Your task to perform on an android device: Find coffee shops on Maps Image 0: 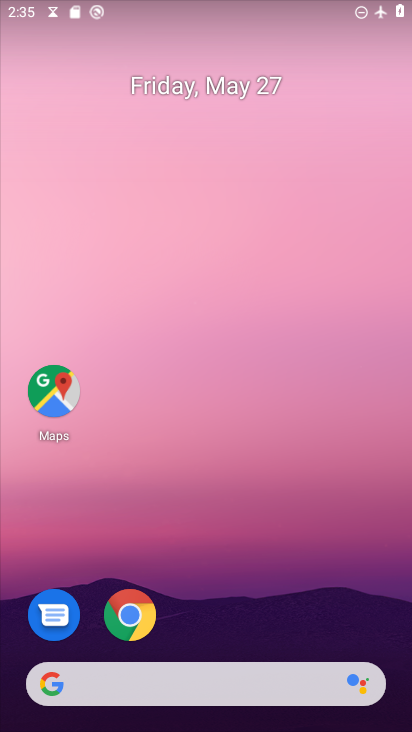
Step 0: drag from (259, 597) to (288, 160)
Your task to perform on an android device: Find coffee shops on Maps Image 1: 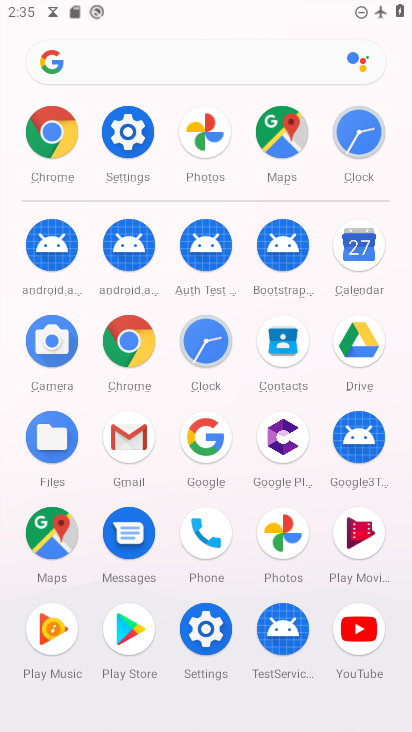
Step 1: click (62, 546)
Your task to perform on an android device: Find coffee shops on Maps Image 2: 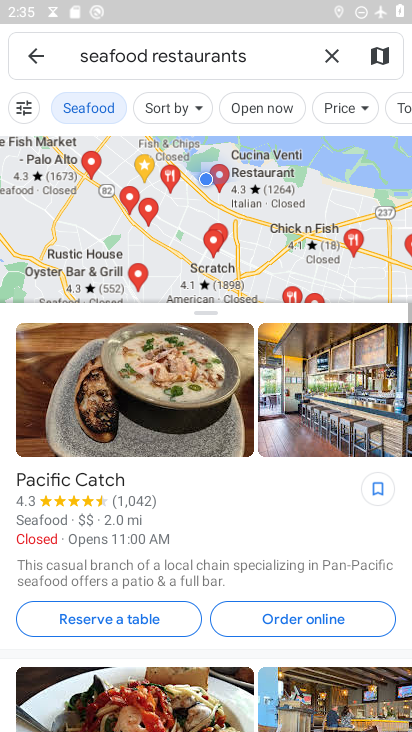
Step 2: click (326, 61)
Your task to perform on an android device: Find coffee shops on Maps Image 3: 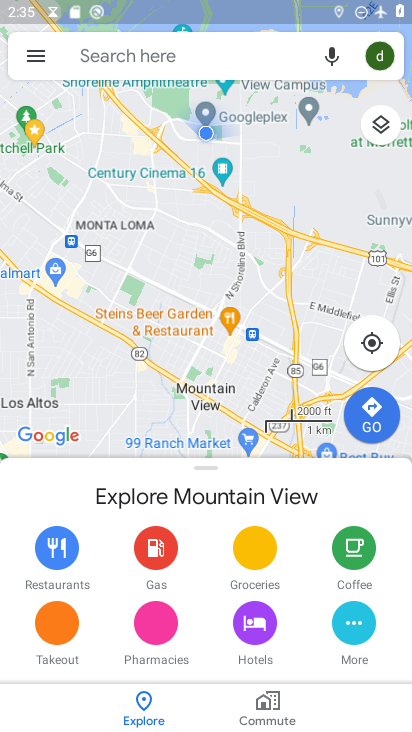
Step 3: click (172, 62)
Your task to perform on an android device: Find coffee shops on Maps Image 4: 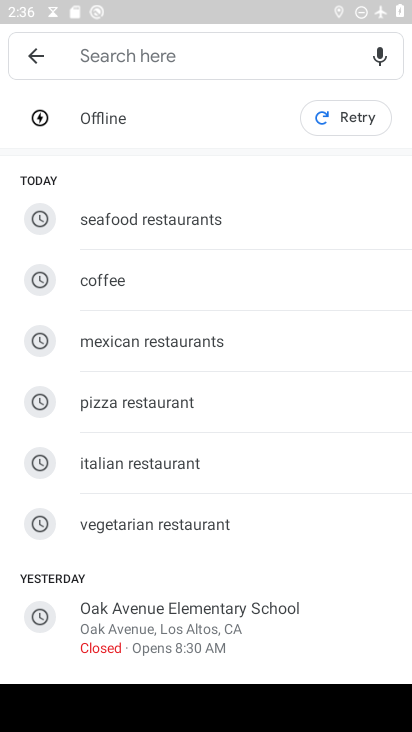
Step 4: type "coffee shops"
Your task to perform on an android device: Find coffee shops on Maps Image 5: 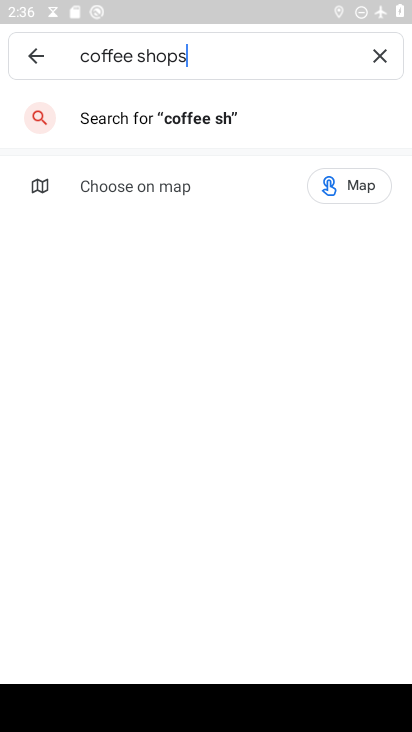
Step 5: type ""
Your task to perform on an android device: Find coffee shops on Maps Image 6: 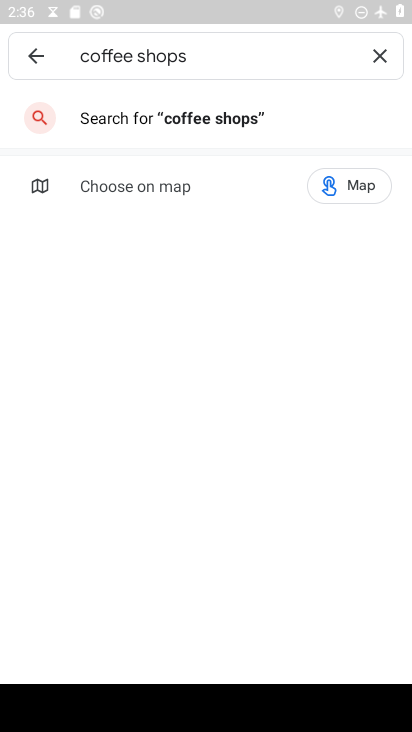
Step 6: click (222, 126)
Your task to perform on an android device: Find coffee shops on Maps Image 7: 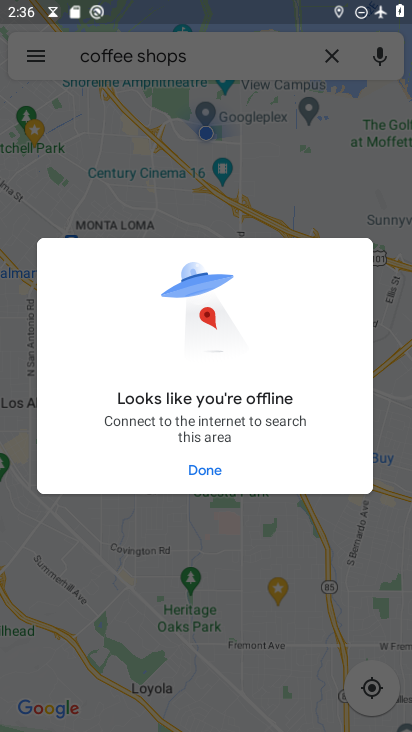
Step 7: click (204, 472)
Your task to perform on an android device: Find coffee shops on Maps Image 8: 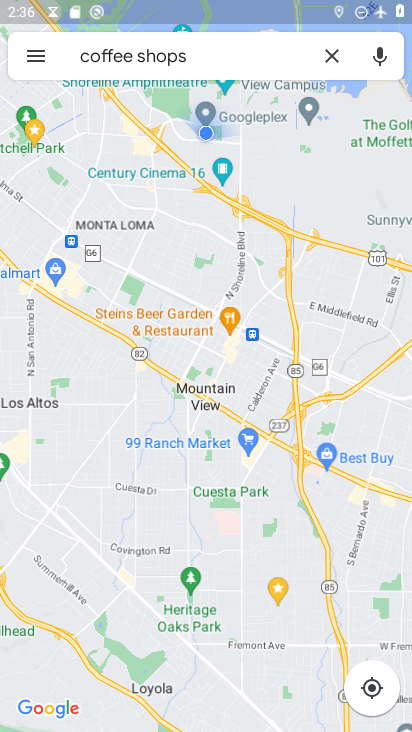
Step 8: task complete